Your task to perform on an android device: Go to location settings Image 0: 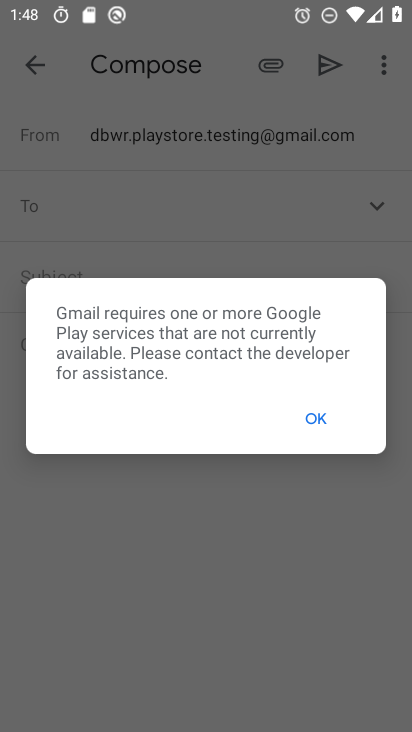
Step 0: press home button
Your task to perform on an android device: Go to location settings Image 1: 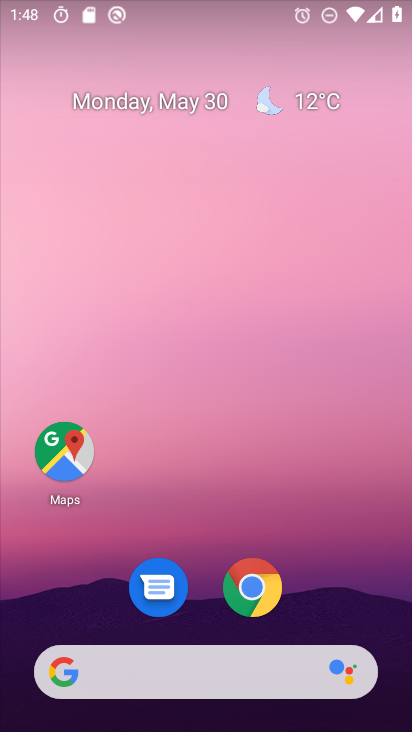
Step 1: drag from (340, 272) to (289, 36)
Your task to perform on an android device: Go to location settings Image 2: 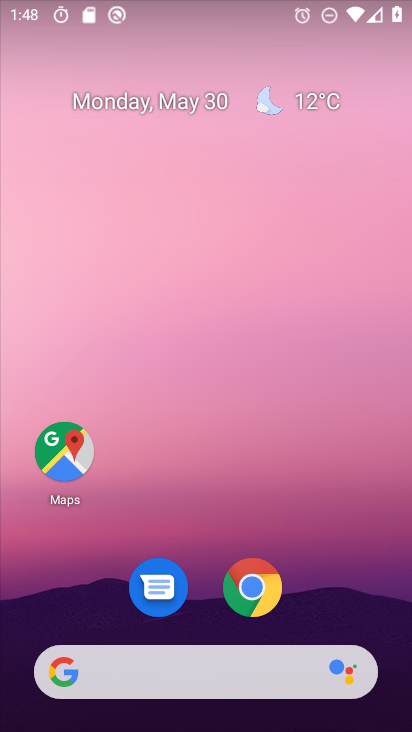
Step 2: drag from (356, 591) to (282, 180)
Your task to perform on an android device: Go to location settings Image 3: 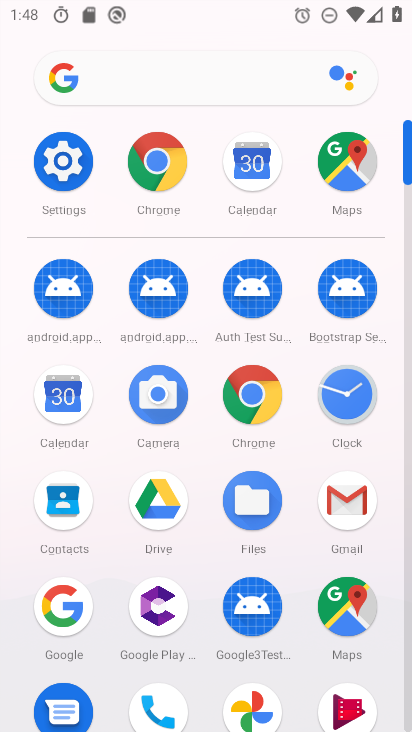
Step 3: click (74, 151)
Your task to perform on an android device: Go to location settings Image 4: 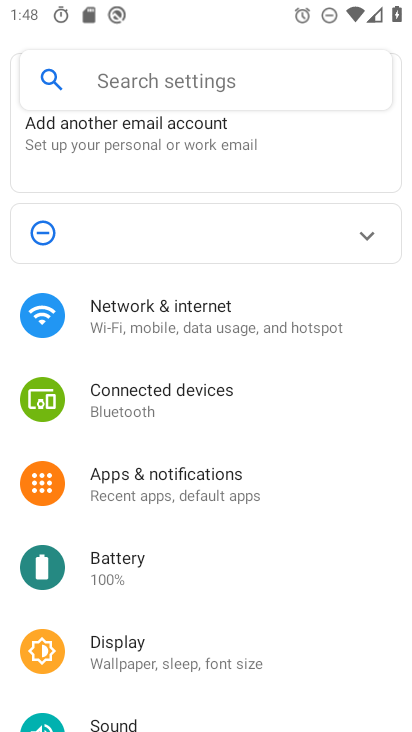
Step 4: drag from (207, 664) to (211, 235)
Your task to perform on an android device: Go to location settings Image 5: 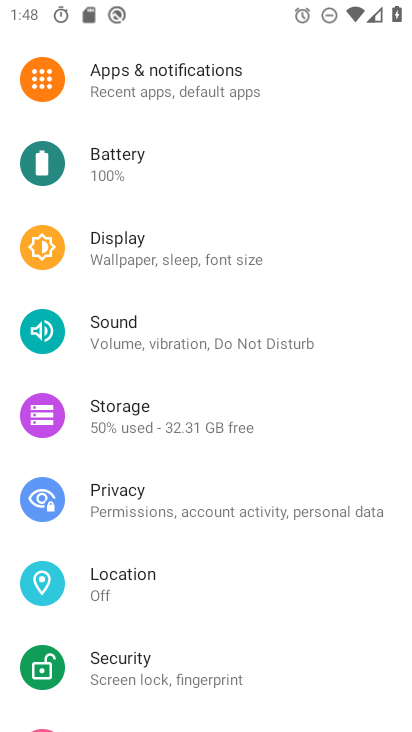
Step 5: click (138, 583)
Your task to perform on an android device: Go to location settings Image 6: 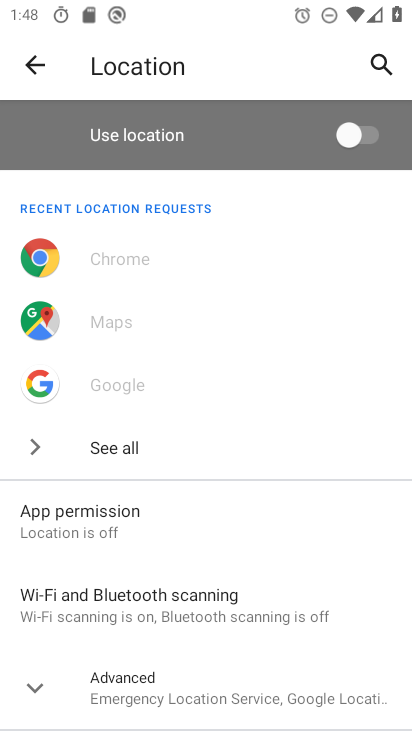
Step 6: task complete